Your task to perform on an android device: open app "Move to iOS" (install if not already installed), go to login, and select forgot password Image 0: 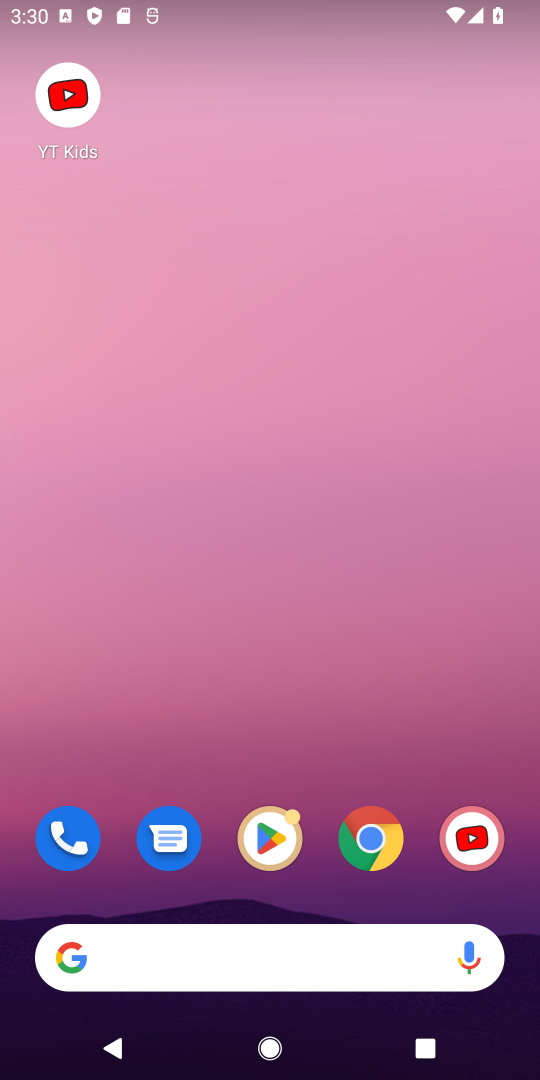
Step 0: press home button
Your task to perform on an android device: open app "Move to iOS" (install if not already installed), go to login, and select forgot password Image 1: 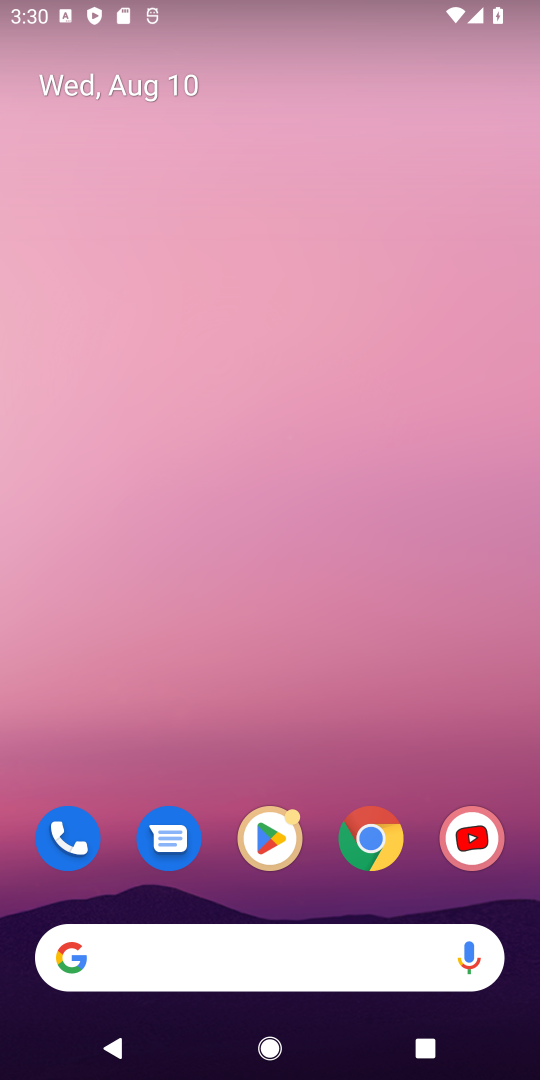
Step 1: click (267, 838)
Your task to perform on an android device: open app "Move to iOS" (install if not already installed), go to login, and select forgot password Image 2: 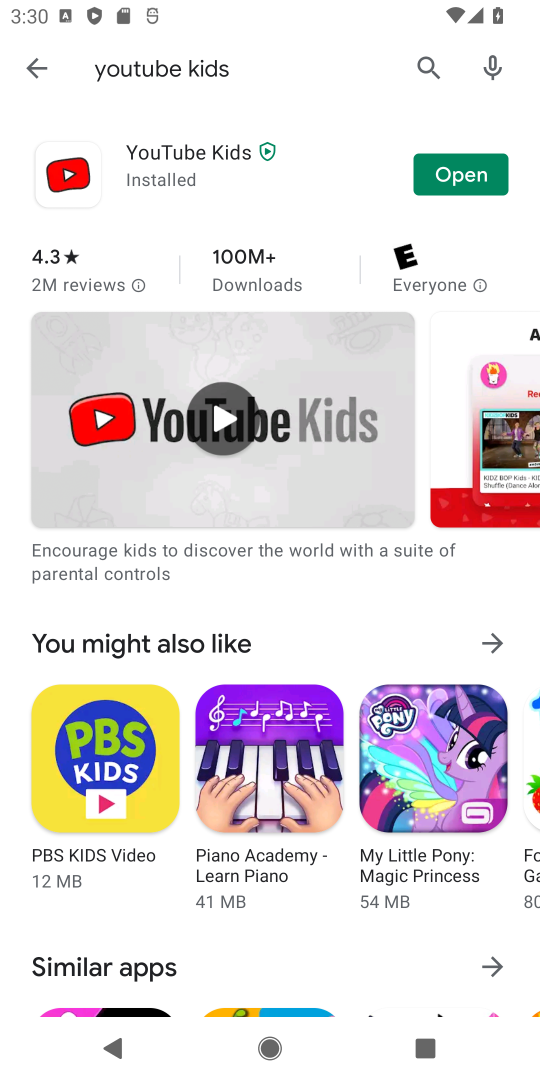
Step 2: click (425, 61)
Your task to perform on an android device: open app "Move to iOS" (install if not already installed), go to login, and select forgot password Image 3: 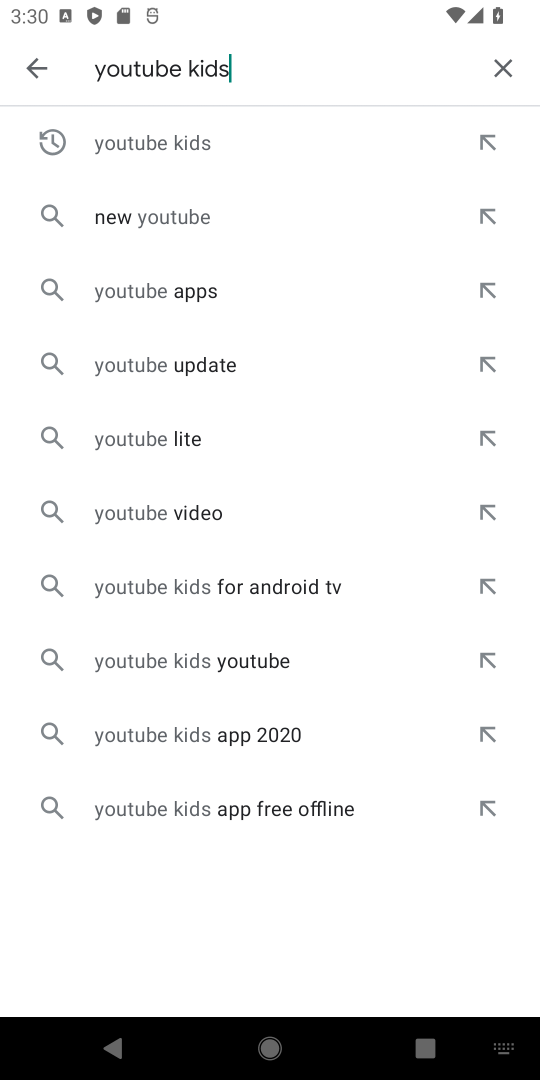
Step 3: click (506, 66)
Your task to perform on an android device: open app "Move to iOS" (install if not already installed), go to login, and select forgot password Image 4: 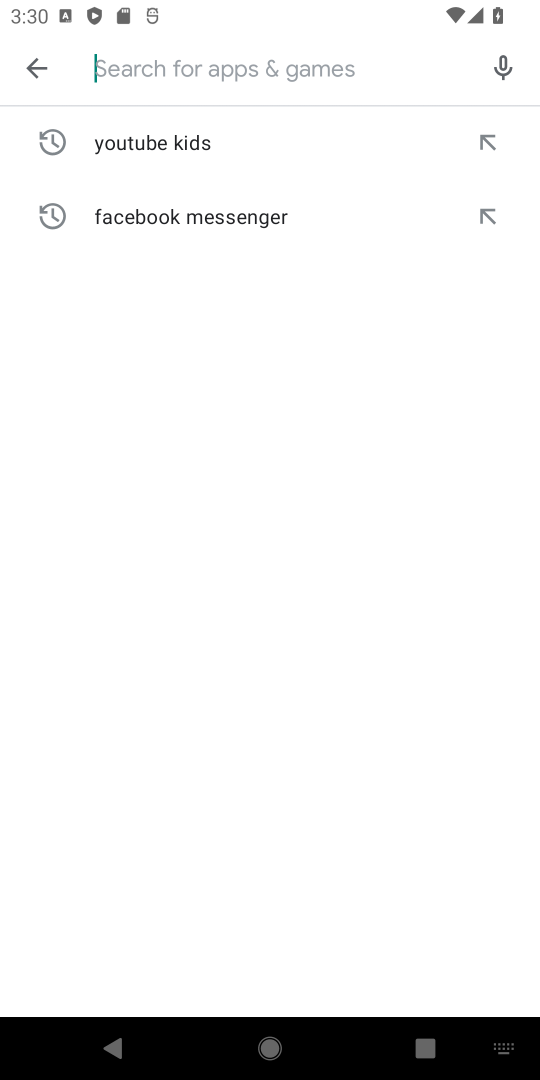
Step 4: type "Move to iOS"
Your task to perform on an android device: open app "Move to iOS" (install if not already installed), go to login, and select forgot password Image 5: 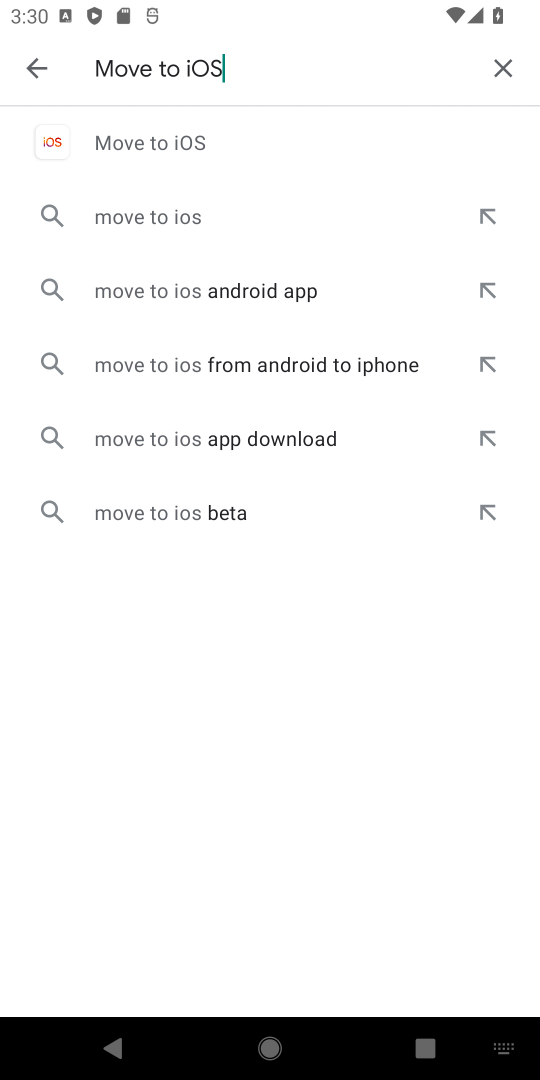
Step 5: click (167, 148)
Your task to perform on an android device: open app "Move to iOS" (install if not already installed), go to login, and select forgot password Image 6: 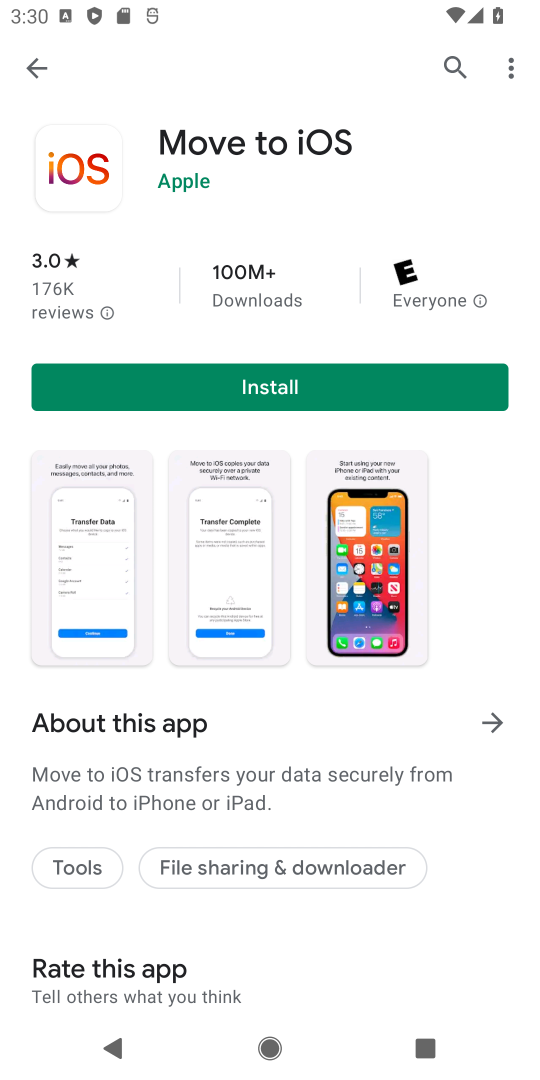
Step 6: click (269, 374)
Your task to perform on an android device: open app "Move to iOS" (install if not already installed), go to login, and select forgot password Image 7: 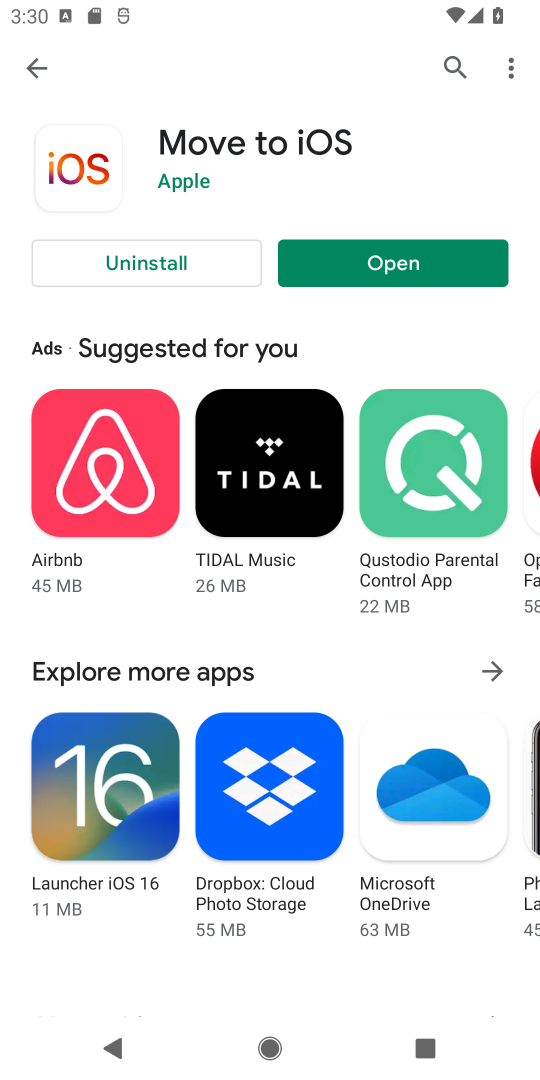
Step 7: click (403, 272)
Your task to perform on an android device: open app "Move to iOS" (install if not already installed), go to login, and select forgot password Image 8: 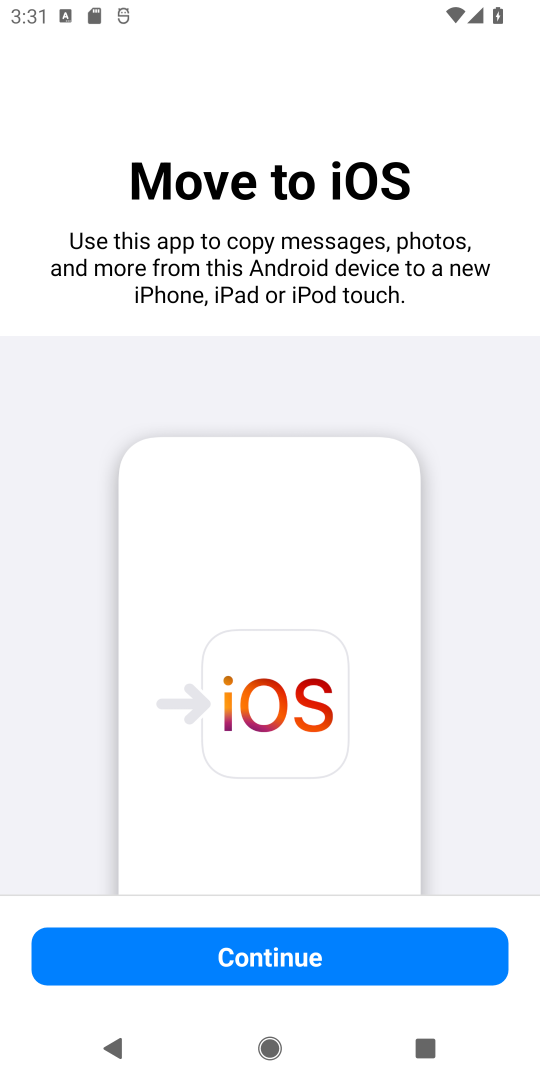
Step 8: click (291, 942)
Your task to perform on an android device: open app "Move to iOS" (install if not already installed), go to login, and select forgot password Image 9: 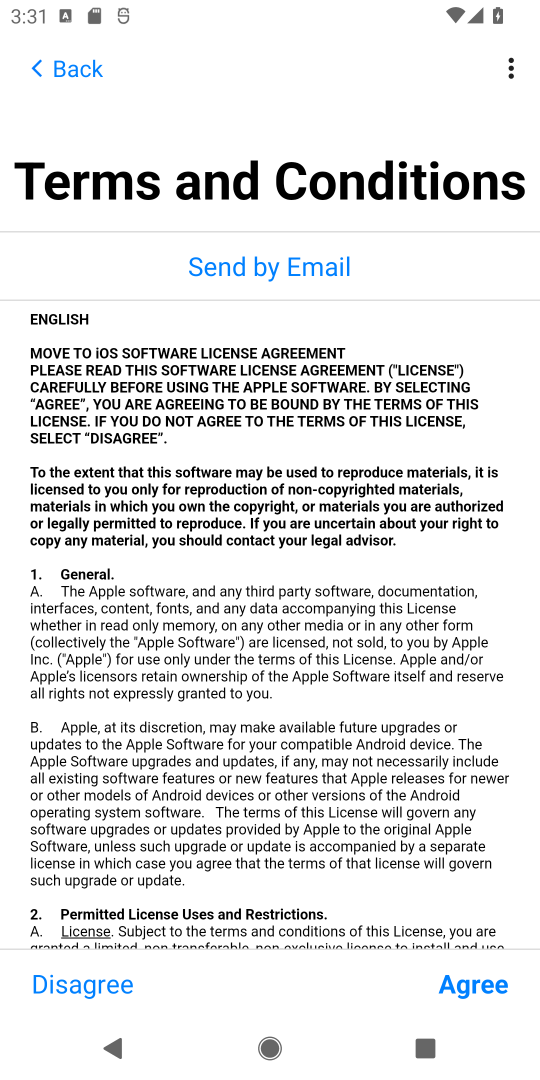
Step 9: click (469, 977)
Your task to perform on an android device: open app "Move to iOS" (install if not already installed), go to login, and select forgot password Image 10: 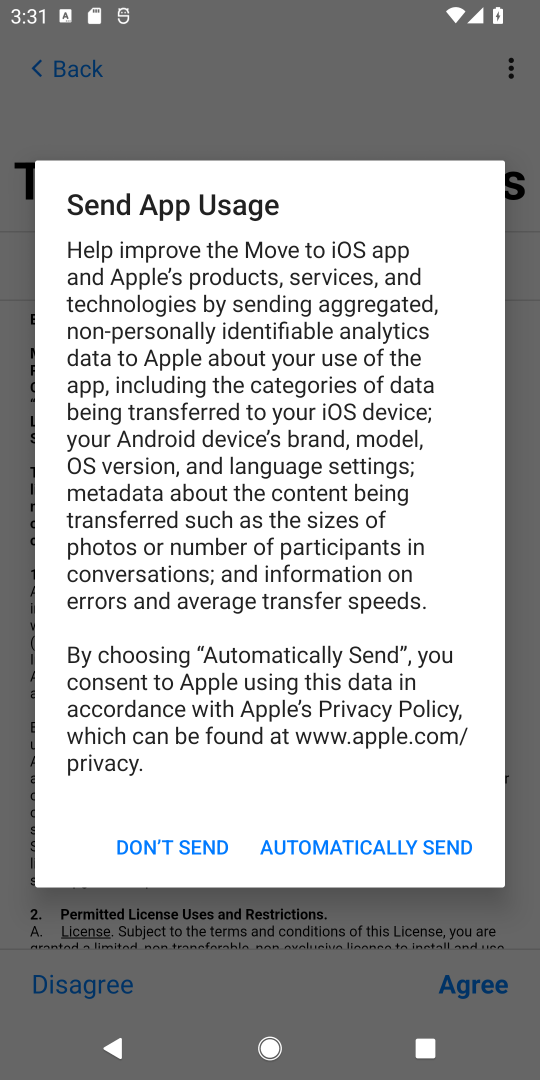
Step 10: click (380, 853)
Your task to perform on an android device: open app "Move to iOS" (install if not already installed), go to login, and select forgot password Image 11: 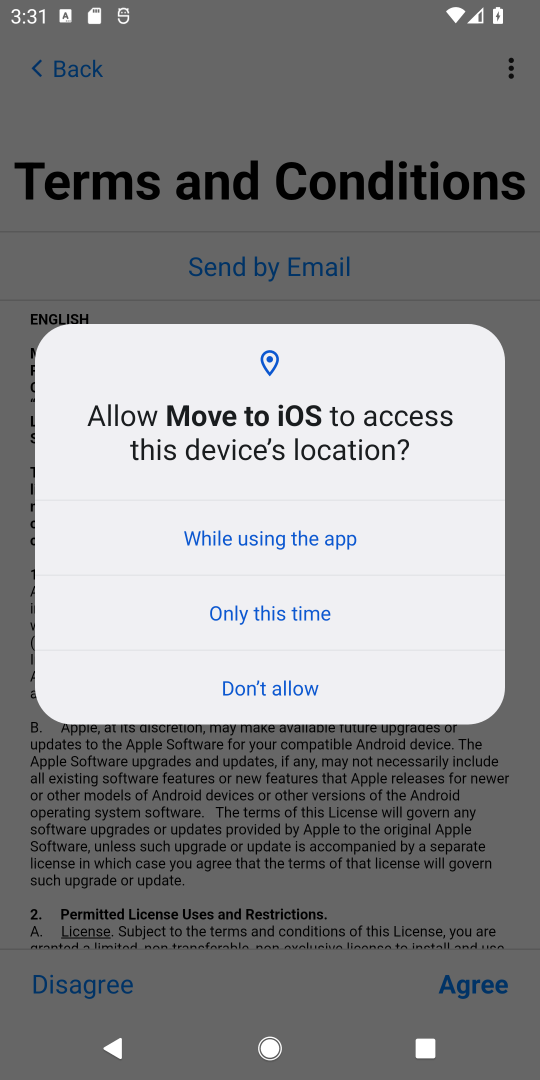
Step 11: click (289, 700)
Your task to perform on an android device: open app "Move to iOS" (install if not already installed), go to login, and select forgot password Image 12: 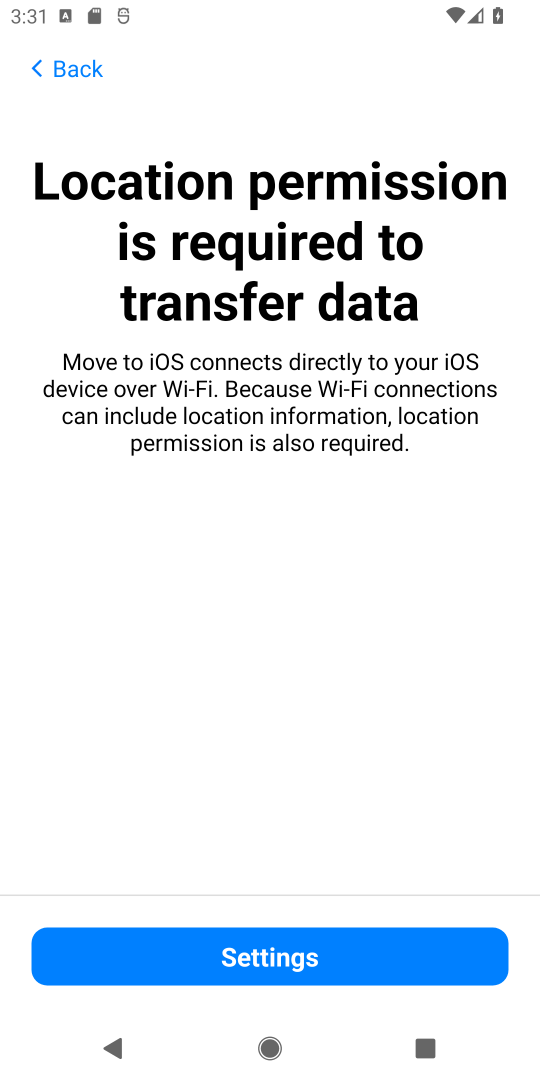
Step 12: click (314, 946)
Your task to perform on an android device: open app "Move to iOS" (install if not already installed), go to login, and select forgot password Image 13: 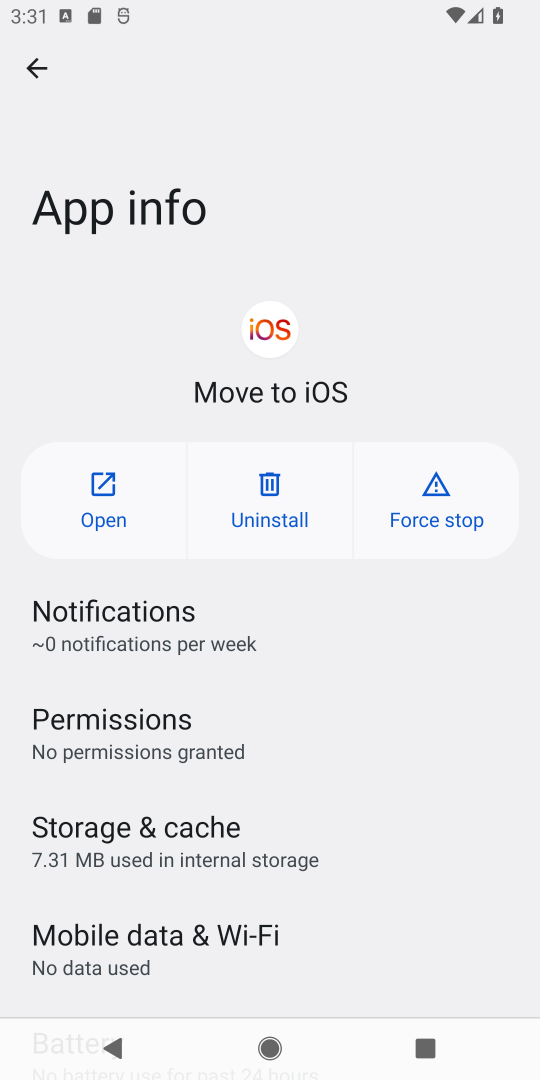
Step 13: click (37, 74)
Your task to perform on an android device: open app "Move to iOS" (install if not already installed), go to login, and select forgot password Image 14: 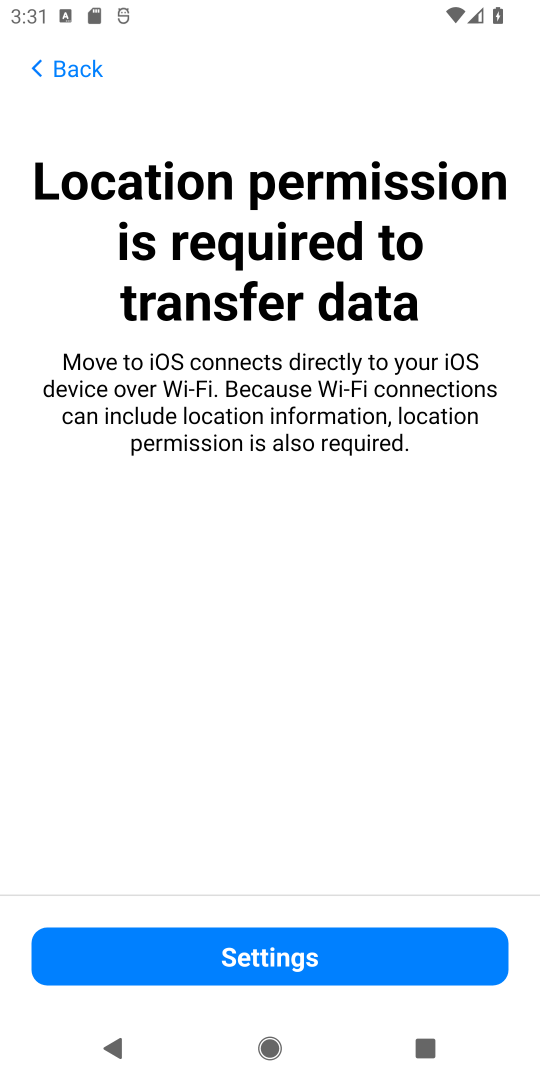
Step 14: click (366, 976)
Your task to perform on an android device: open app "Move to iOS" (install if not already installed), go to login, and select forgot password Image 15: 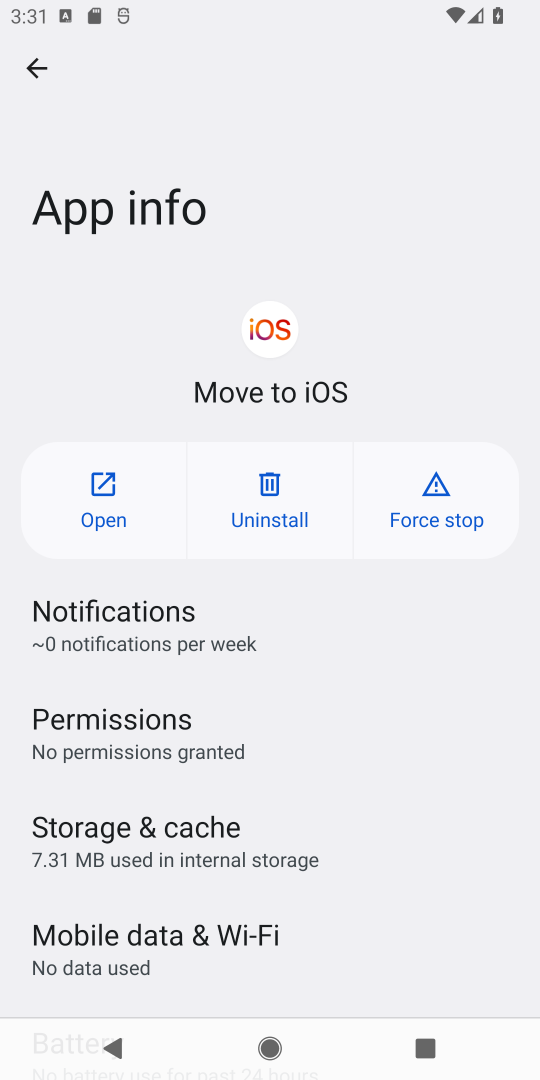
Step 15: click (193, 747)
Your task to perform on an android device: open app "Move to iOS" (install if not already installed), go to login, and select forgot password Image 16: 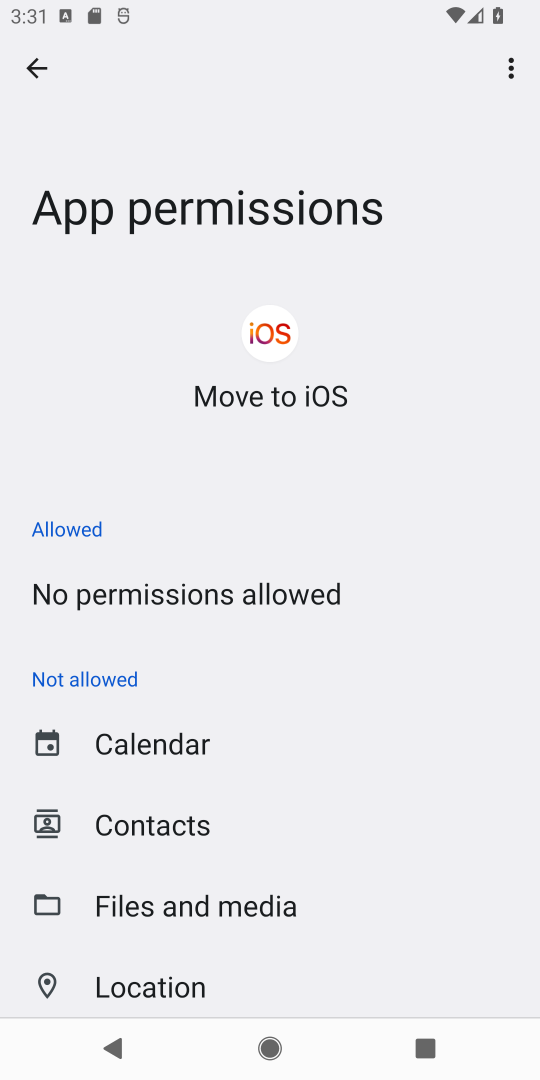
Step 16: click (301, 604)
Your task to perform on an android device: open app "Move to iOS" (install if not already installed), go to login, and select forgot password Image 17: 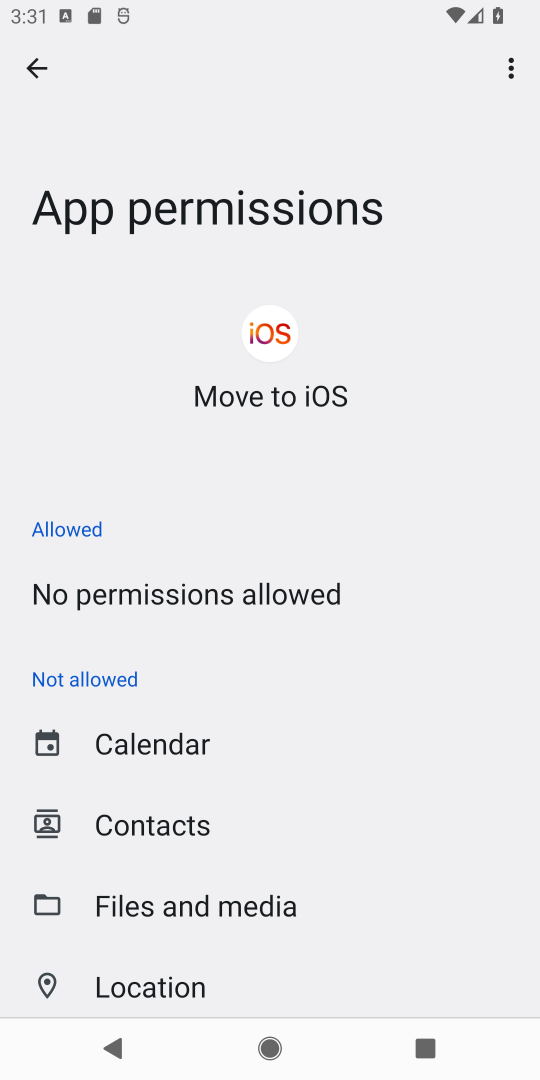
Step 17: click (171, 598)
Your task to perform on an android device: open app "Move to iOS" (install if not already installed), go to login, and select forgot password Image 18: 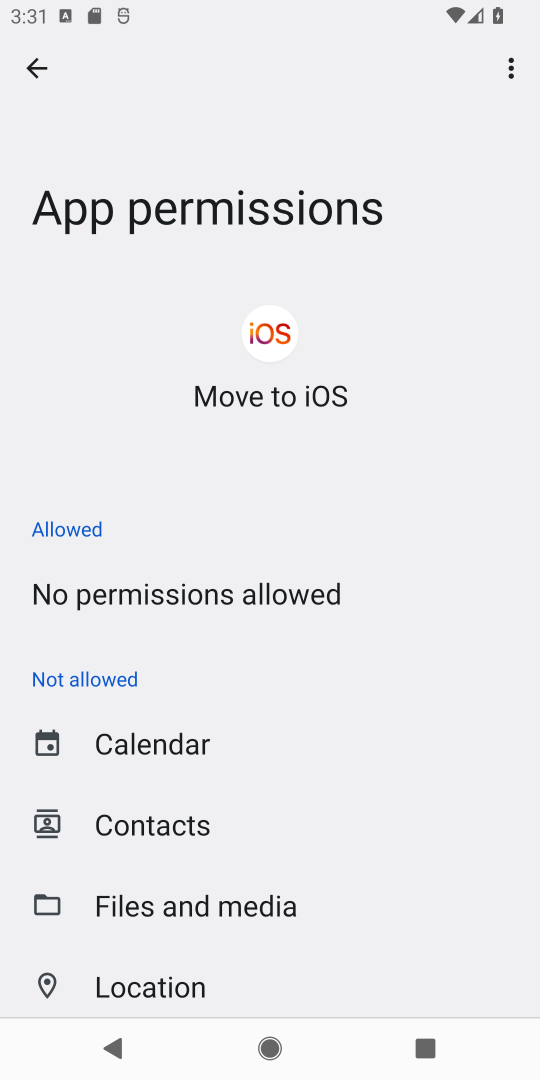
Step 18: press back button
Your task to perform on an android device: open app "Move to iOS" (install if not already installed), go to login, and select forgot password Image 19: 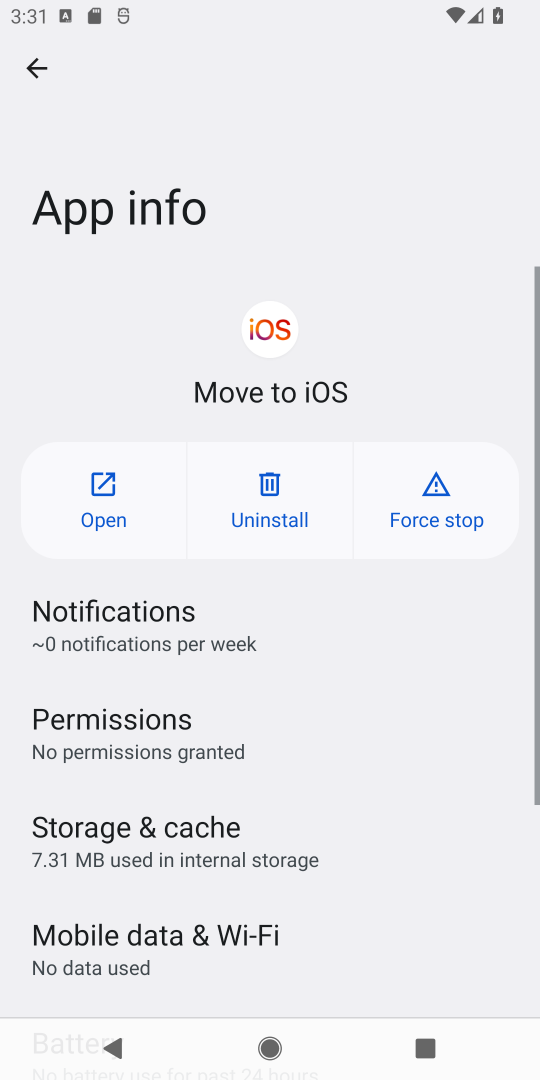
Step 19: press back button
Your task to perform on an android device: open app "Move to iOS" (install if not already installed), go to login, and select forgot password Image 20: 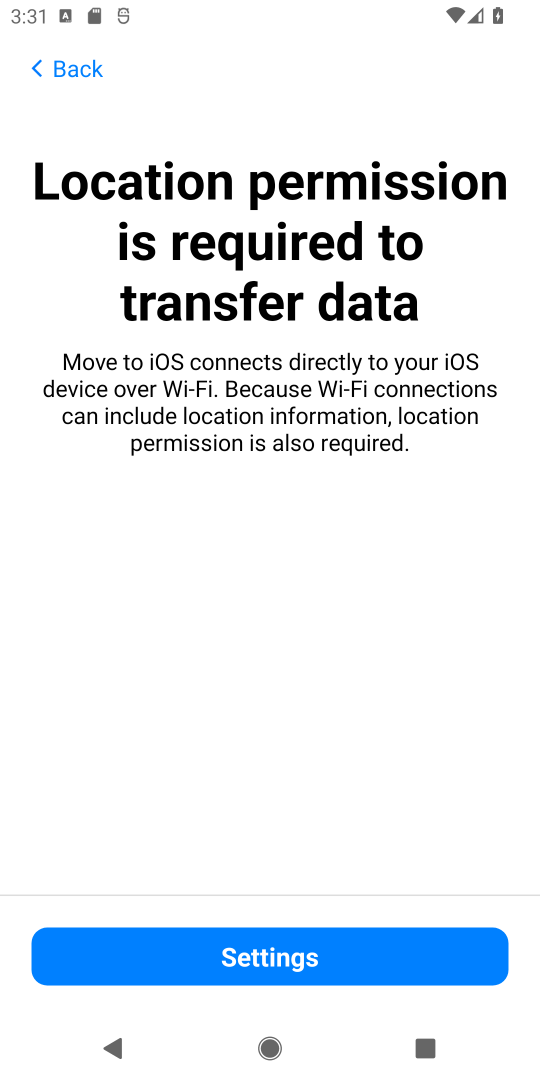
Step 20: click (37, 63)
Your task to perform on an android device: open app "Move to iOS" (install if not already installed), go to login, and select forgot password Image 21: 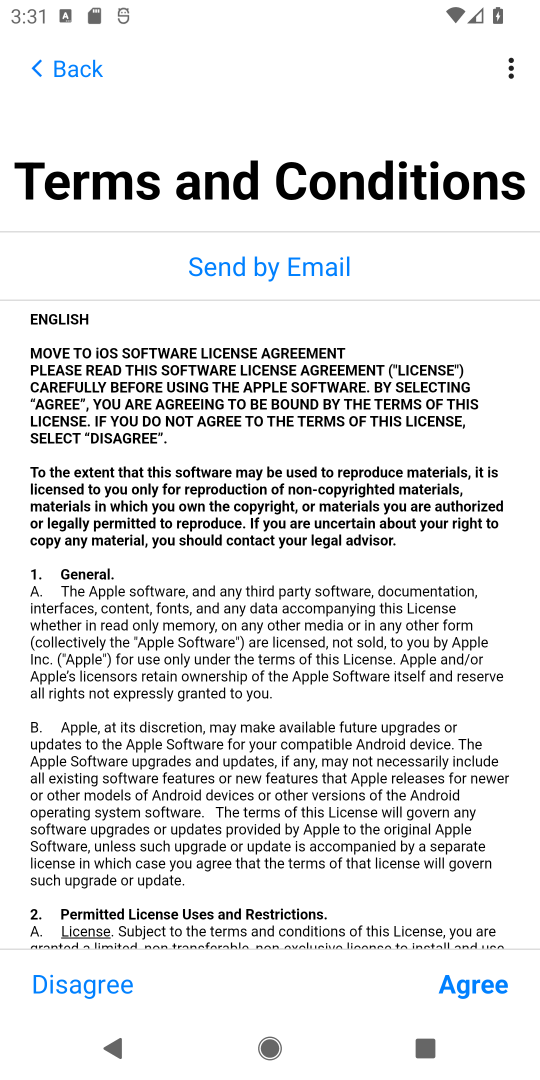
Step 21: click (502, 988)
Your task to perform on an android device: open app "Move to iOS" (install if not already installed), go to login, and select forgot password Image 22: 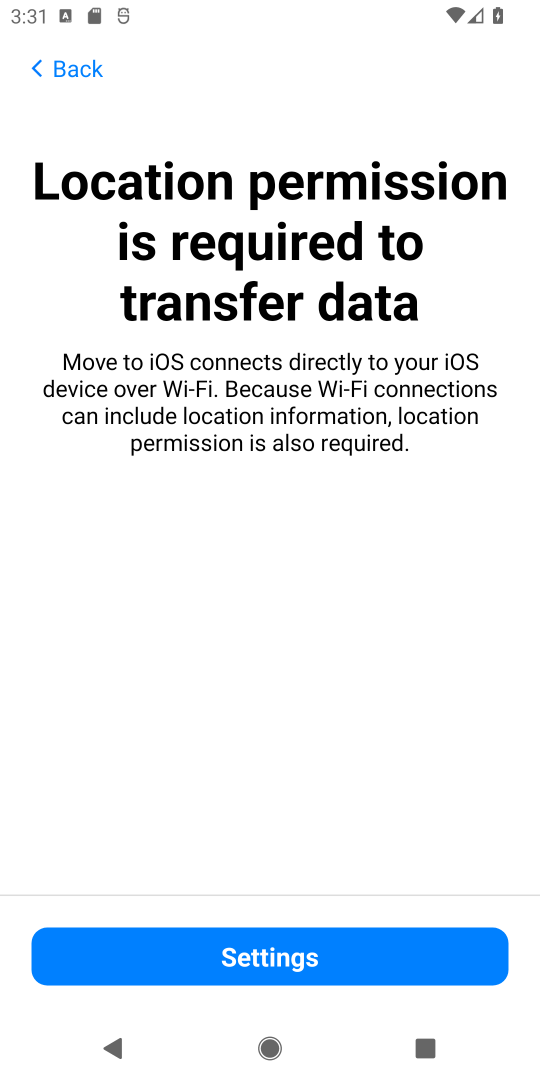
Step 22: click (323, 968)
Your task to perform on an android device: open app "Move to iOS" (install if not already installed), go to login, and select forgot password Image 23: 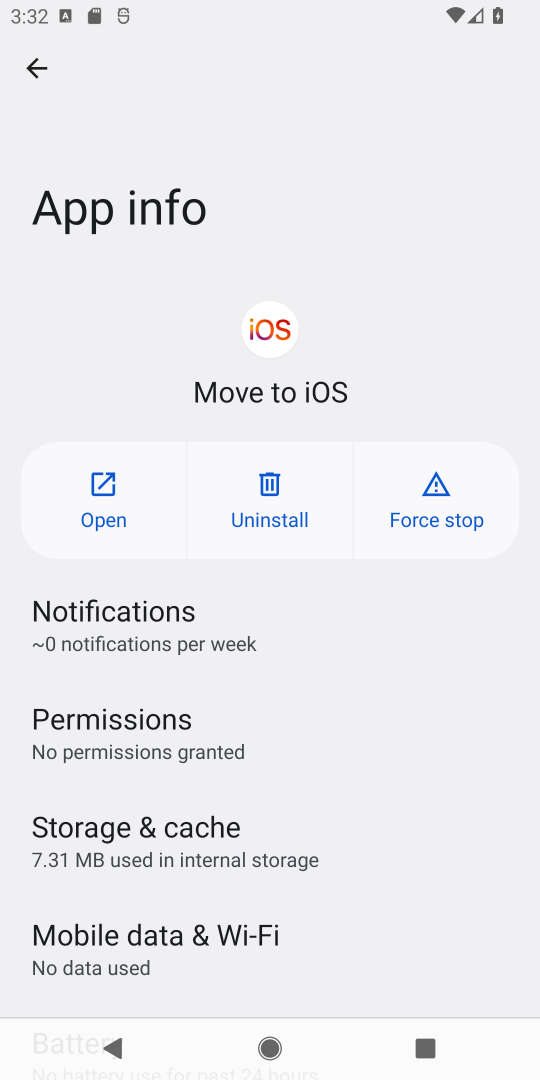
Step 23: click (246, 357)
Your task to perform on an android device: open app "Move to iOS" (install if not already installed), go to login, and select forgot password Image 24: 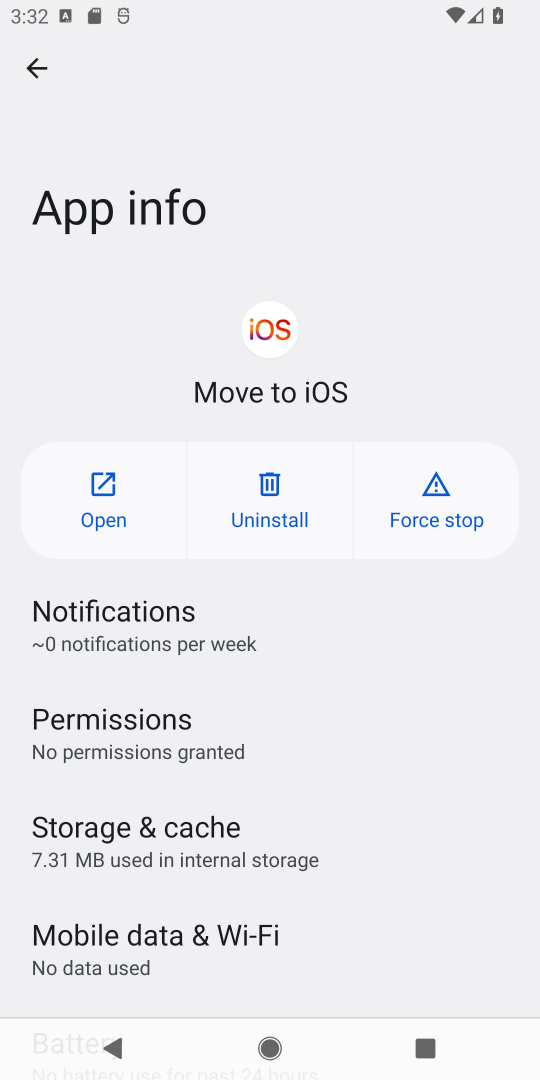
Step 24: click (200, 756)
Your task to perform on an android device: open app "Move to iOS" (install if not already installed), go to login, and select forgot password Image 25: 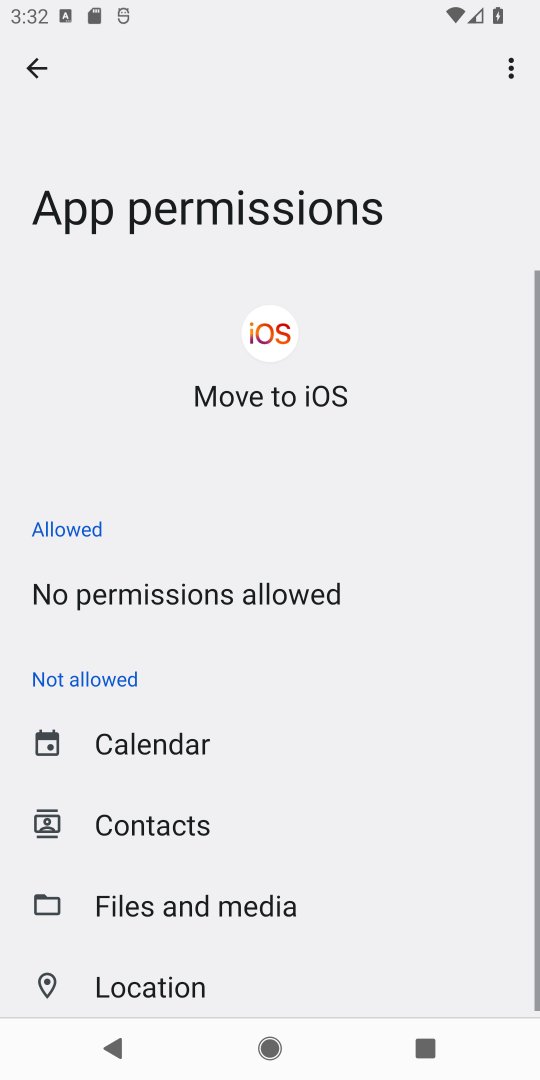
Step 25: task complete